Your task to perform on an android device: When is my next appointment? Image 0: 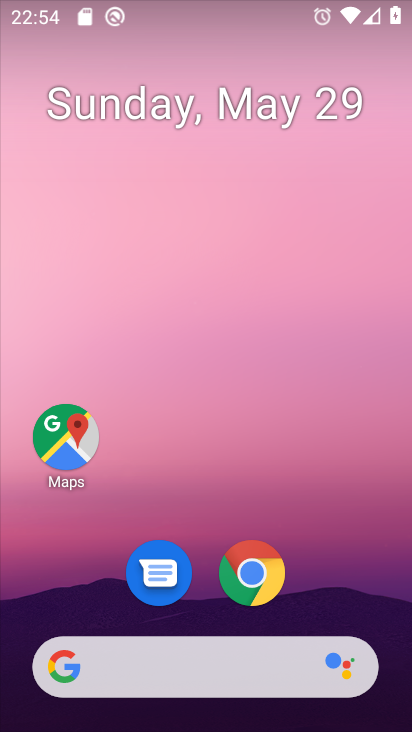
Step 0: drag from (206, 476) to (209, 0)
Your task to perform on an android device: When is my next appointment? Image 1: 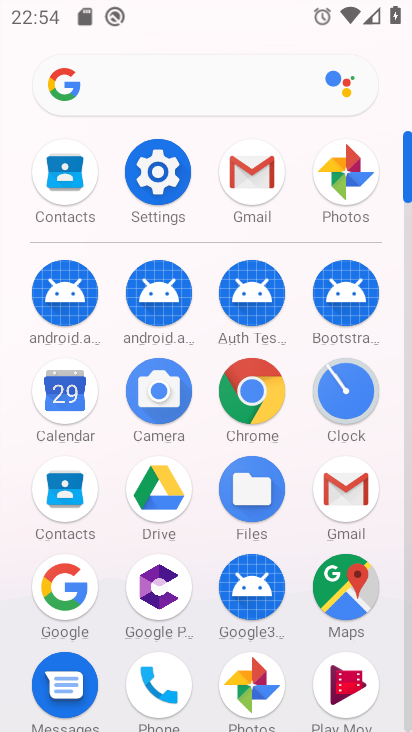
Step 1: click (67, 391)
Your task to perform on an android device: When is my next appointment? Image 2: 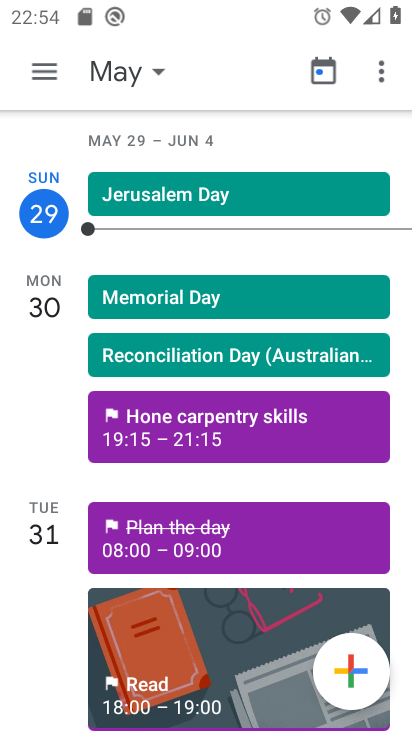
Step 2: task complete